Your task to perform on an android device: star an email in the gmail app Image 0: 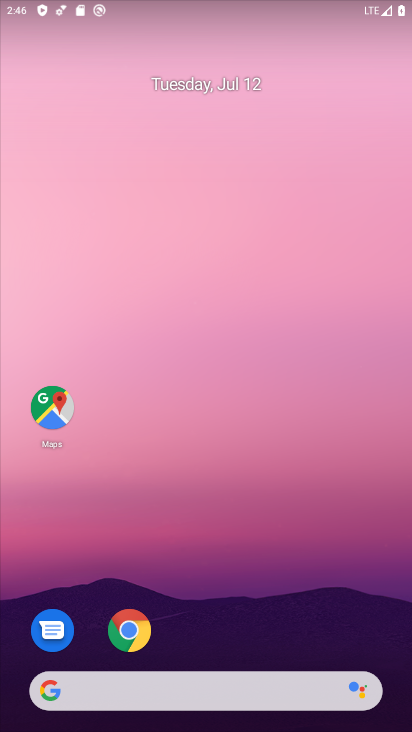
Step 0: drag from (230, 591) to (246, 57)
Your task to perform on an android device: star an email in the gmail app Image 1: 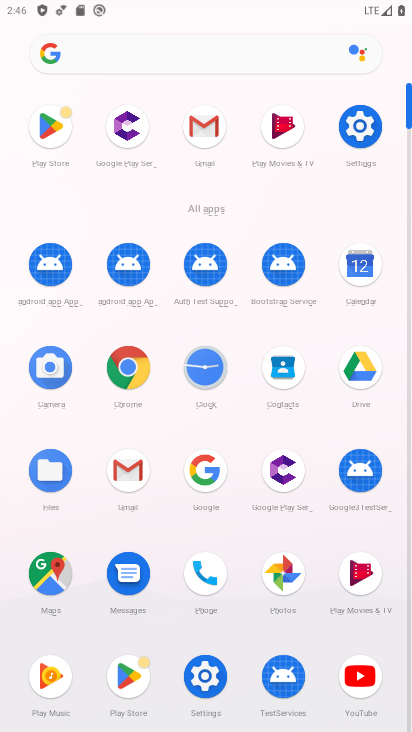
Step 1: click (133, 488)
Your task to perform on an android device: star an email in the gmail app Image 2: 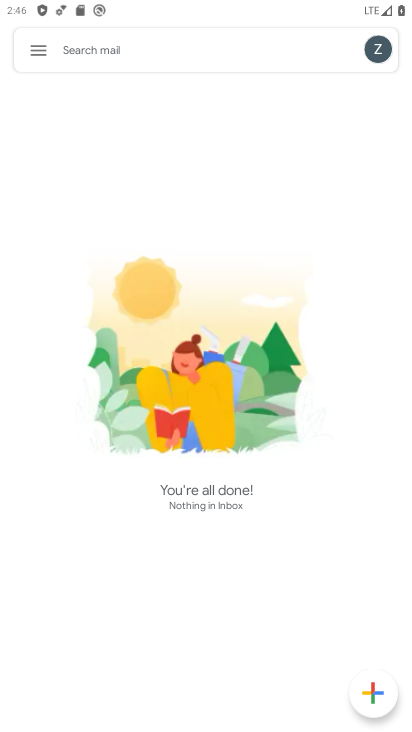
Step 2: task complete